Your task to perform on an android device: Open calendar and show me the fourth week of next month Image 0: 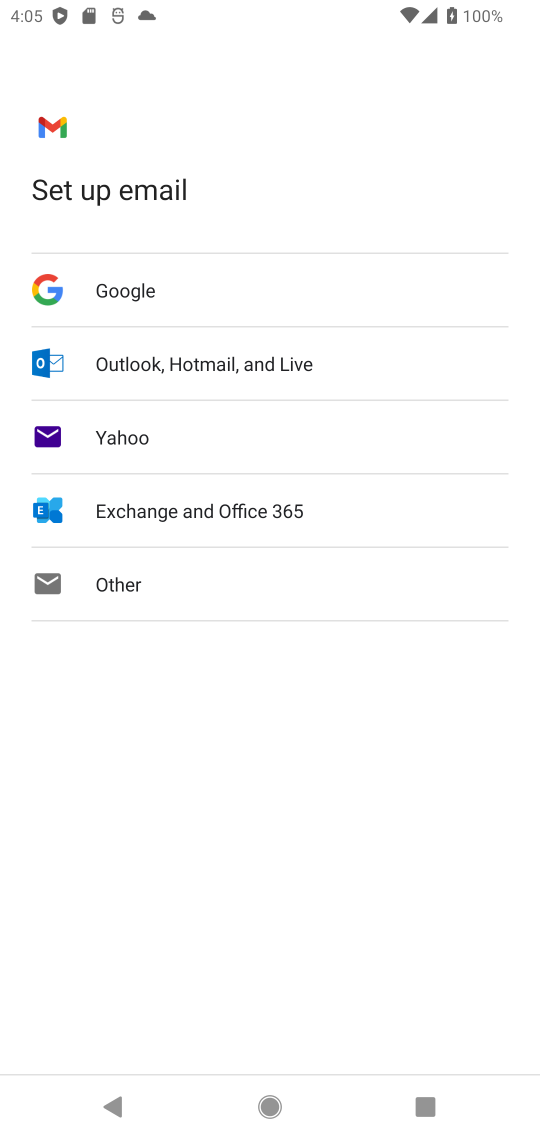
Step 0: press home button
Your task to perform on an android device: Open calendar and show me the fourth week of next month Image 1: 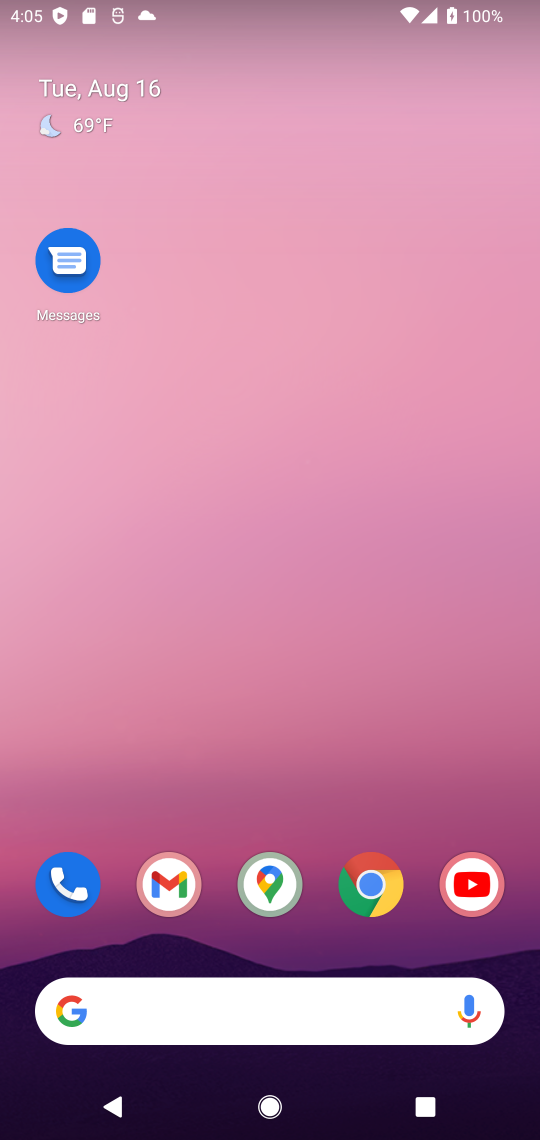
Step 1: drag from (47, 1105) to (232, 116)
Your task to perform on an android device: Open calendar and show me the fourth week of next month Image 2: 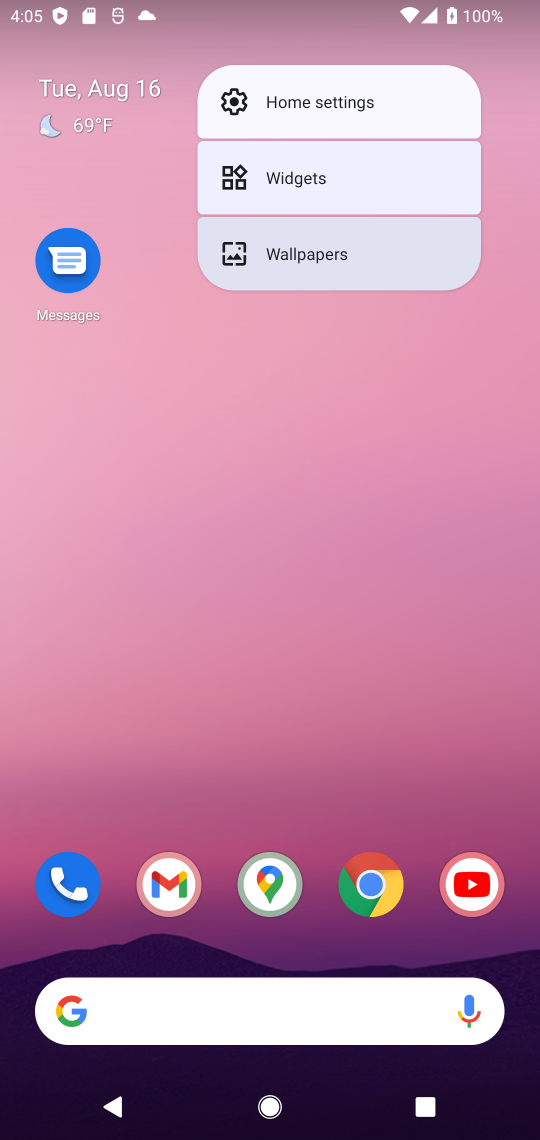
Step 2: drag from (50, 1047) to (282, 312)
Your task to perform on an android device: Open calendar and show me the fourth week of next month Image 3: 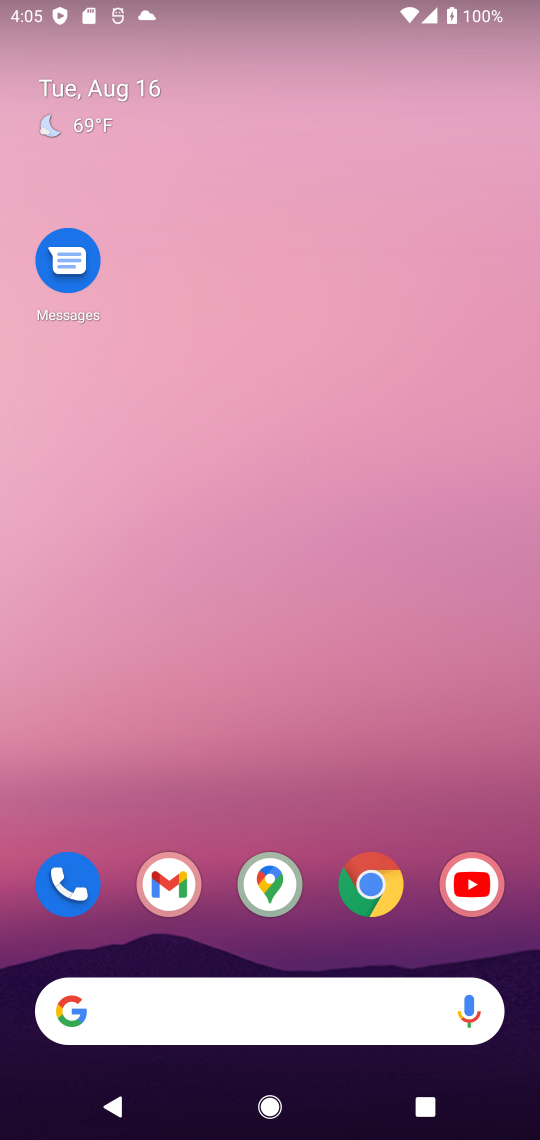
Step 3: drag from (186, 678) to (243, 96)
Your task to perform on an android device: Open calendar and show me the fourth week of next month Image 4: 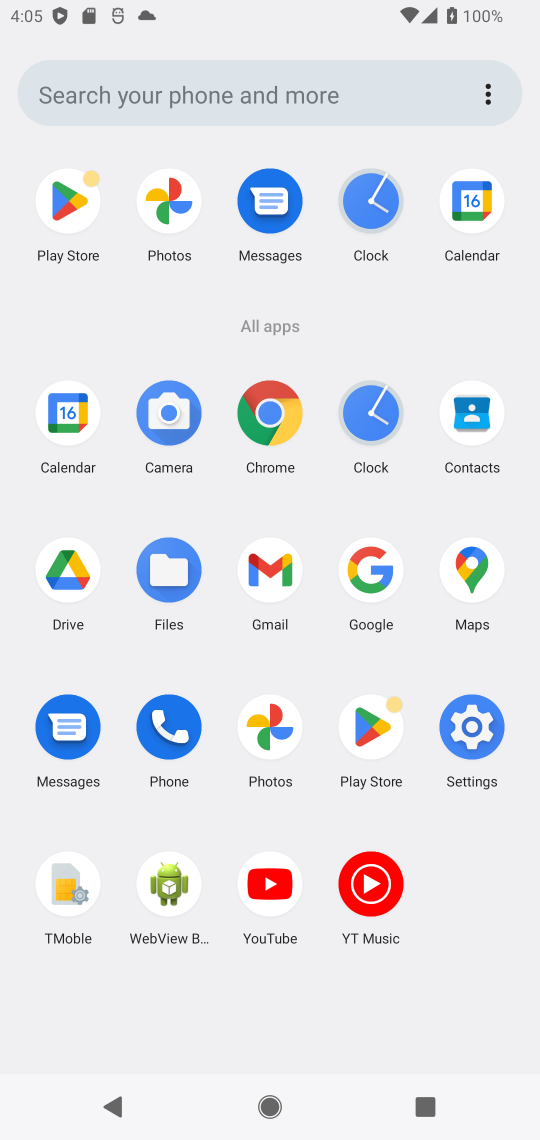
Step 4: click (469, 226)
Your task to perform on an android device: Open calendar and show me the fourth week of next month Image 5: 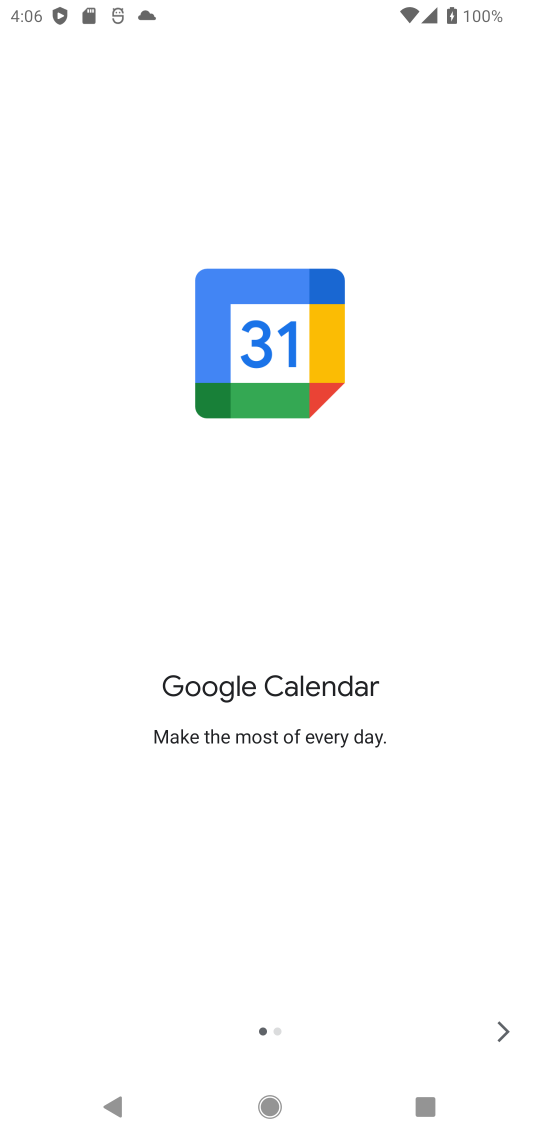
Step 5: click (506, 1011)
Your task to perform on an android device: Open calendar and show me the fourth week of next month Image 6: 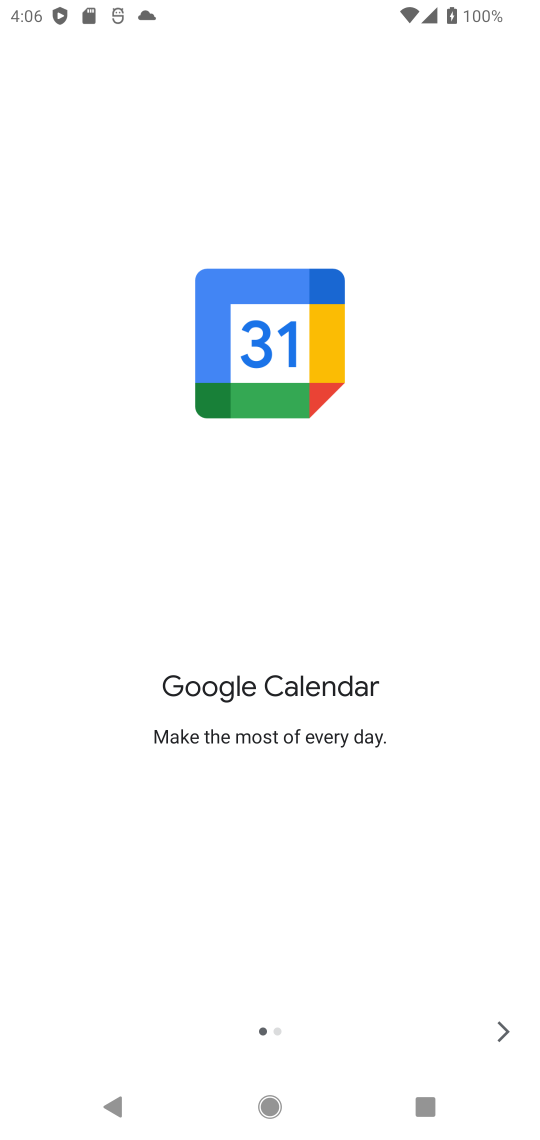
Step 6: click (493, 1021)
Your task to perform on an android device: Open calendar and show me the fourth week of next month Image 7: 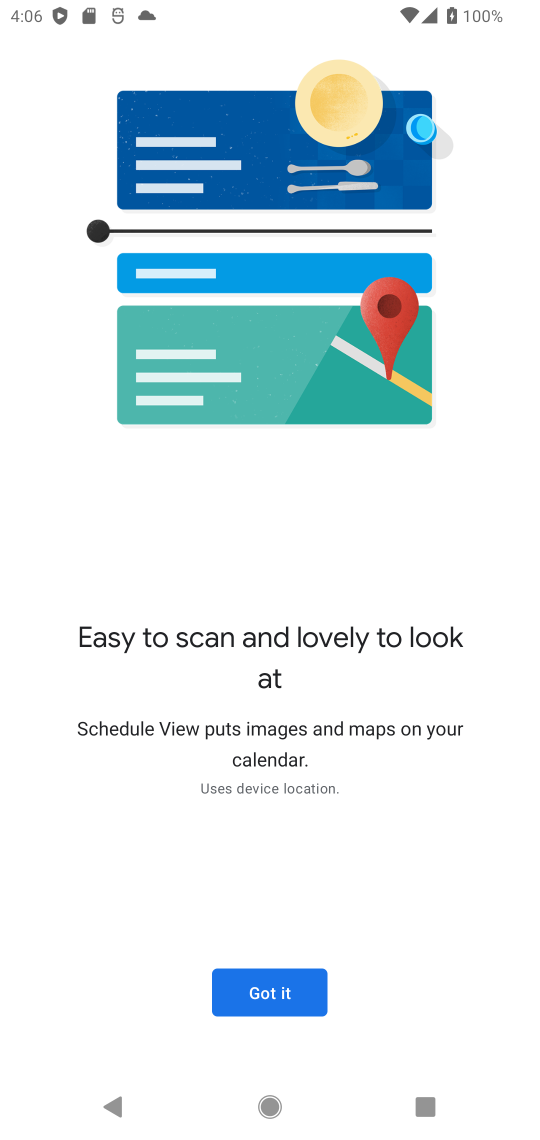
Step 7: click (292, 991)
Your task to perform on an android device: Open calendar and show me the fourth week of next month Image 8: 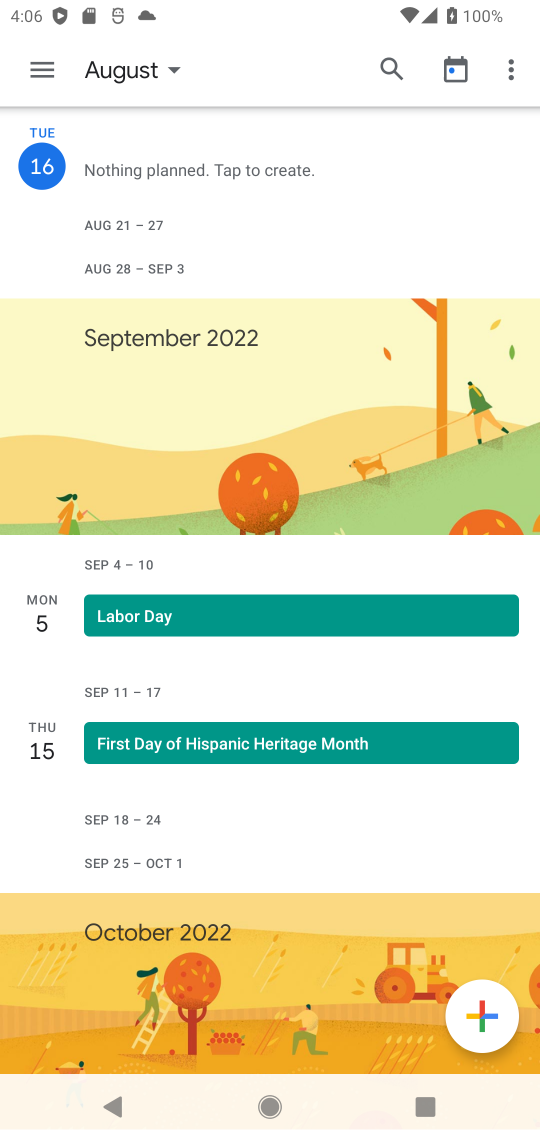
Step 8: click (153, 75)
Your task to perform on an android device: Open calendar and show me the fourth week of next month Image 9: 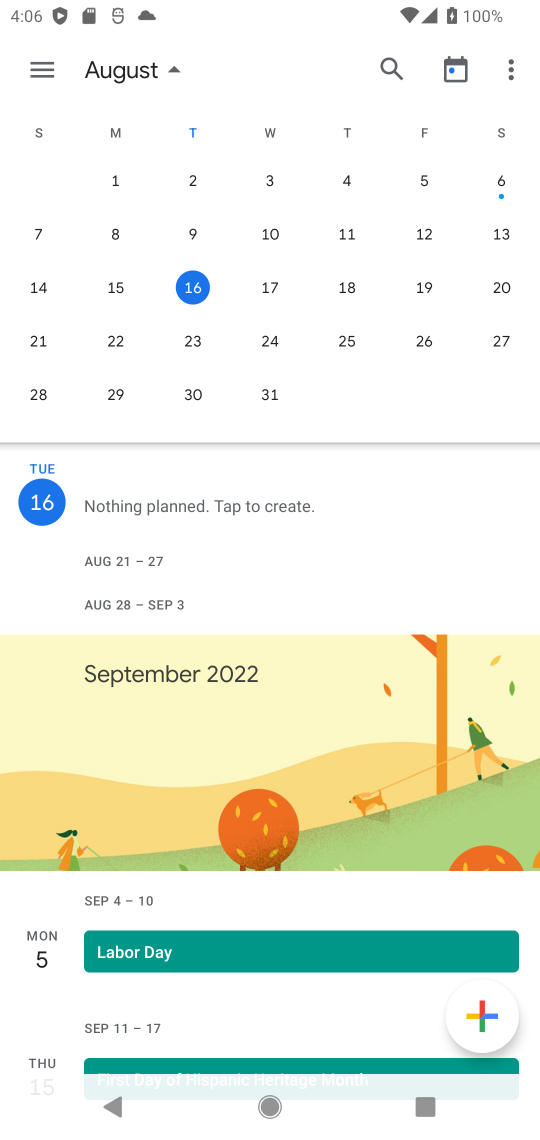
Step 9: drag from (501, 216) to (11, 252)
Your task to perform on an android device: Open calendar and show me the fourth week of next month Image 10: 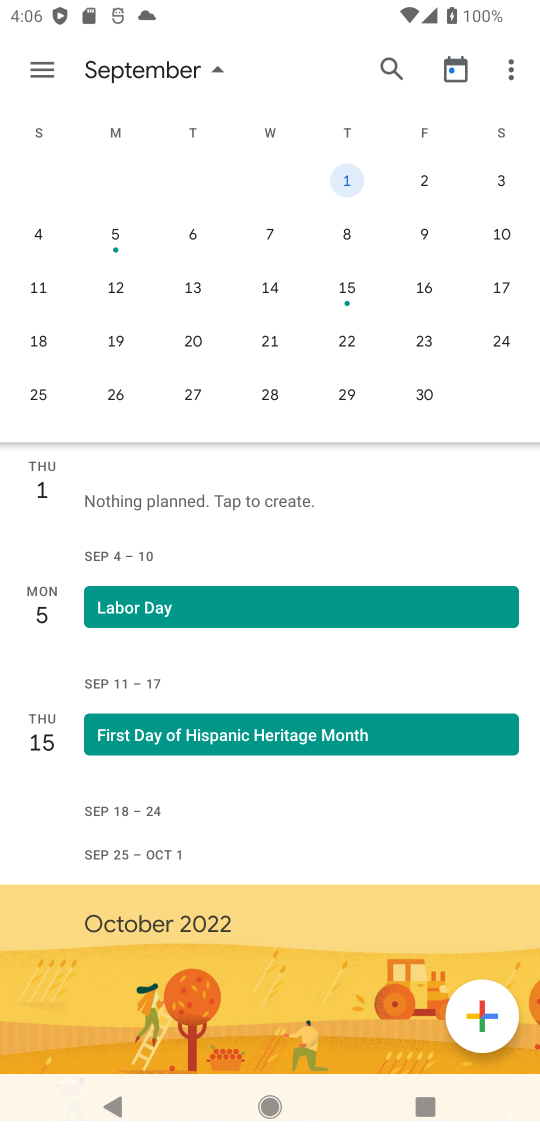
Step 10: click (114, 337)
Your task to perform on an android device: Open calendar and show me the fourth week of next month Image 11: 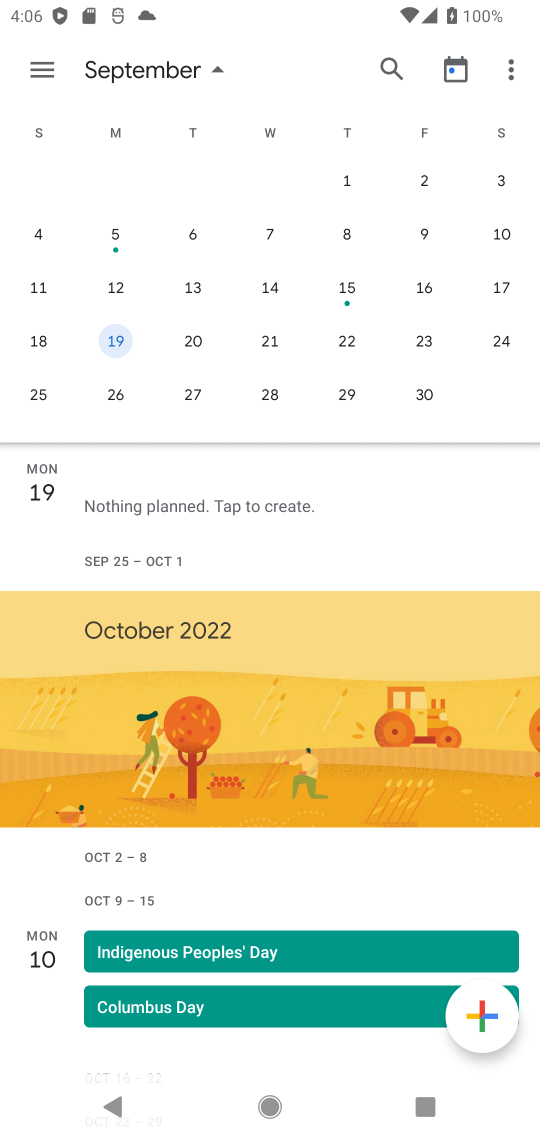
Step 11: task complete